Your task to perform on an android device: Open the stopwatch Image 0: 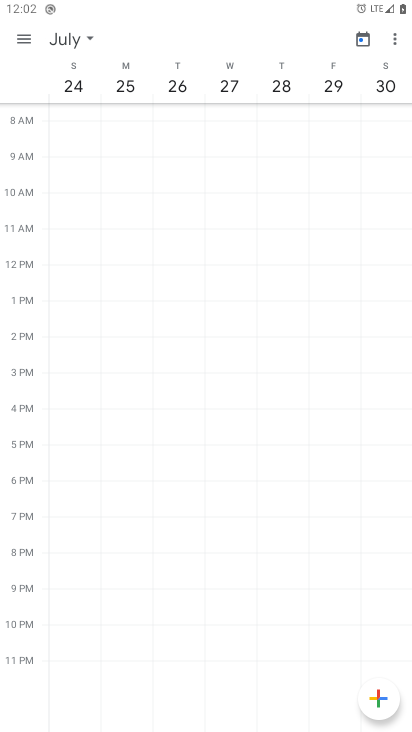
Step 0: press home button
Your task to perform on an android device: Open the stopwatch Image 1: 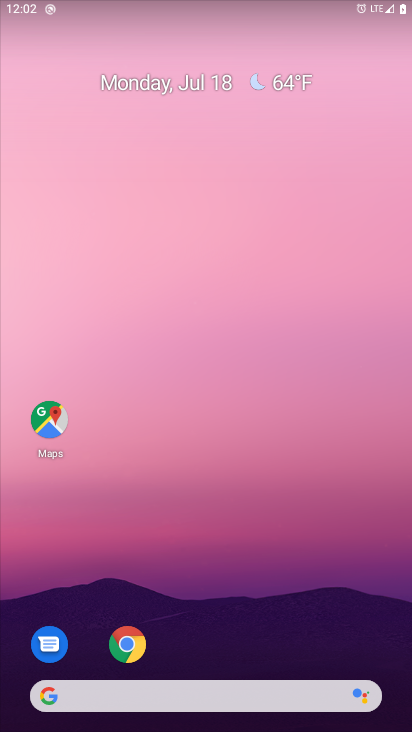
Step 1: drag from (199, 544) to (209, 93)
Your task to perform on an android device: Open the stopwatch Image 2: 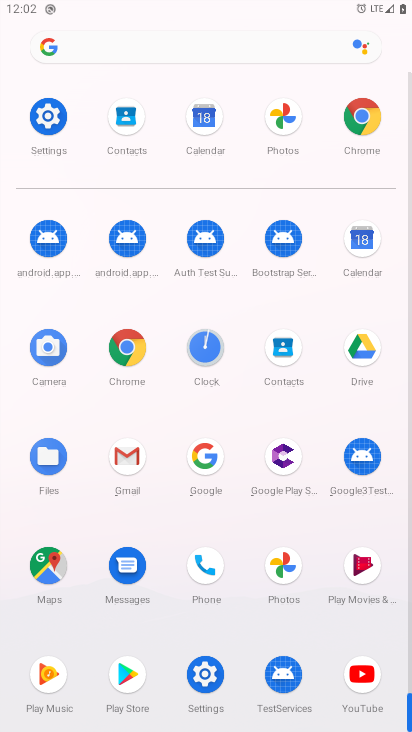
Step 2: click (207, 347)
Your task to perform on an android device: Open the stopwatch Image 3: 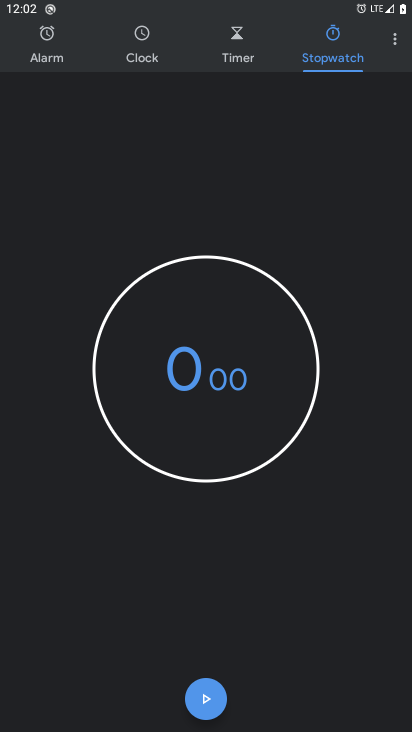
Step 3: task complete